Your task to perform on an android device: Search for Italian restaurants on Maps Image 0: 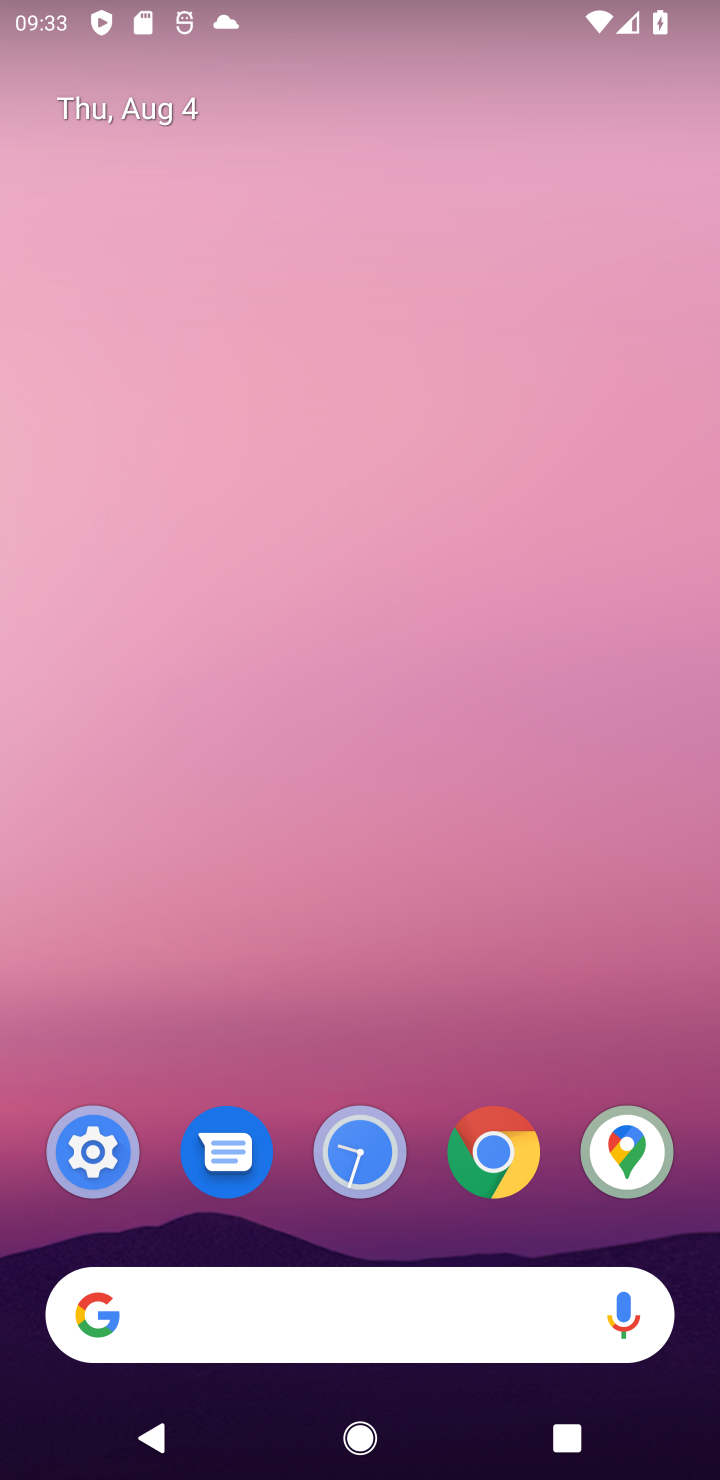
Step 0: click (638, 1152)
Your task to perform on an android device: Search for Italian restaurants on Maps Image 1: 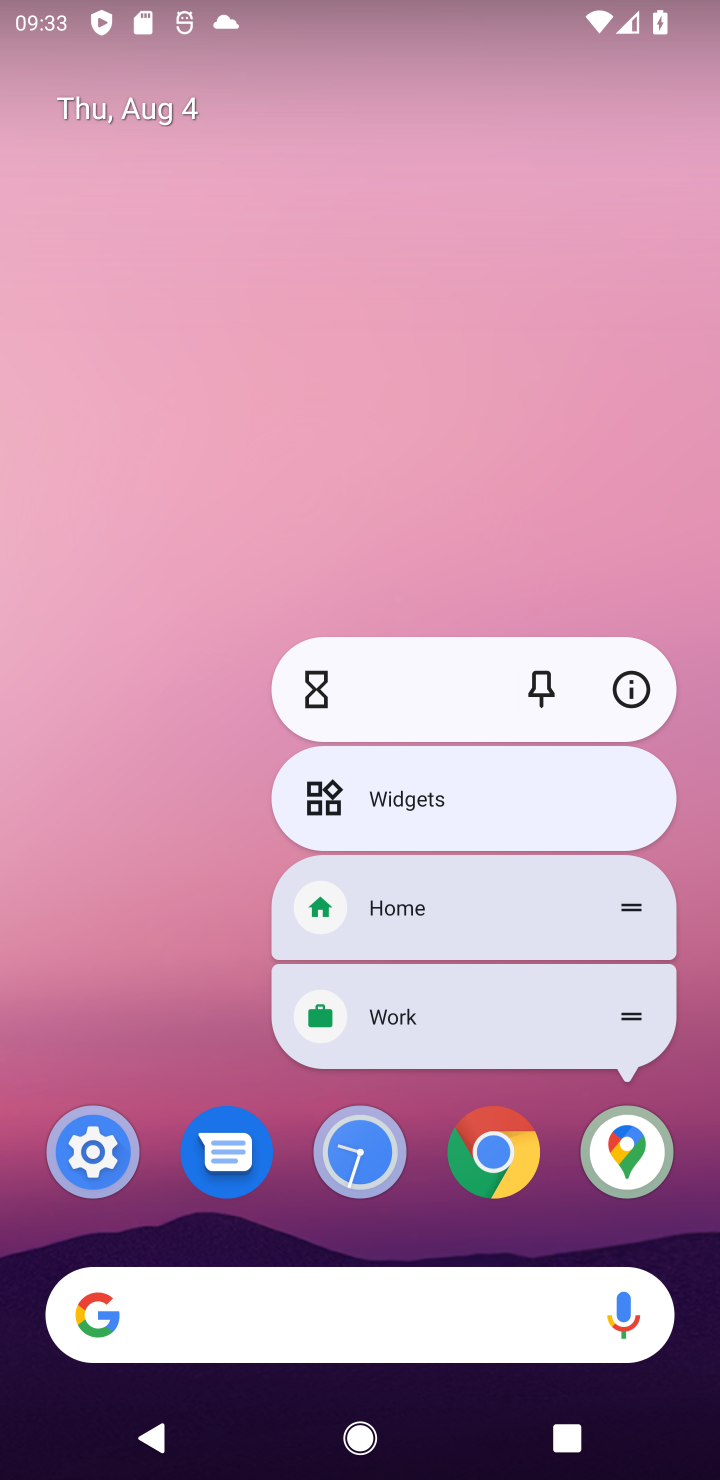
Step 1: click (637, 1149)
Your task to perform on an android device: Search for Italian restaurants on Maps Image 2: 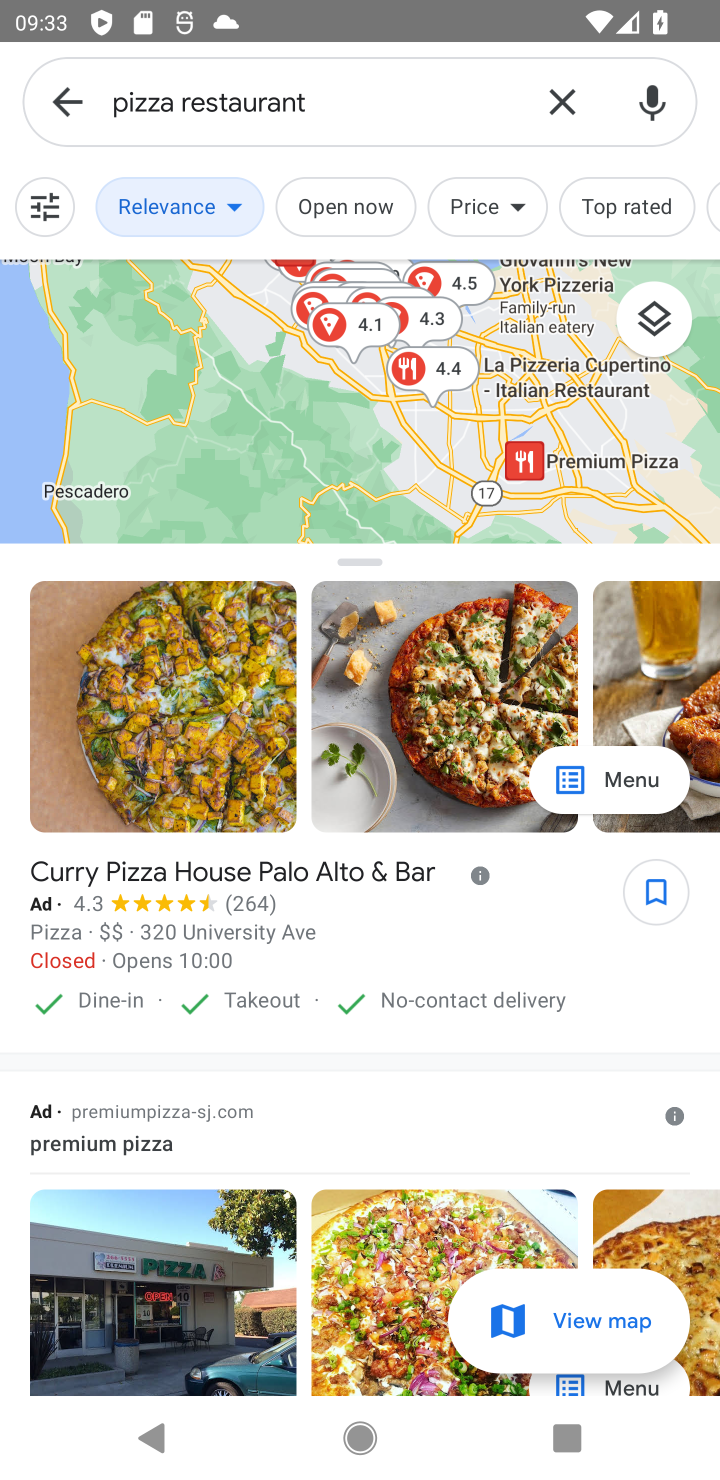
Step 2: click (549, 107)
Your task to perform on an android device: Search for Italian restaurants on Maps Image 3: 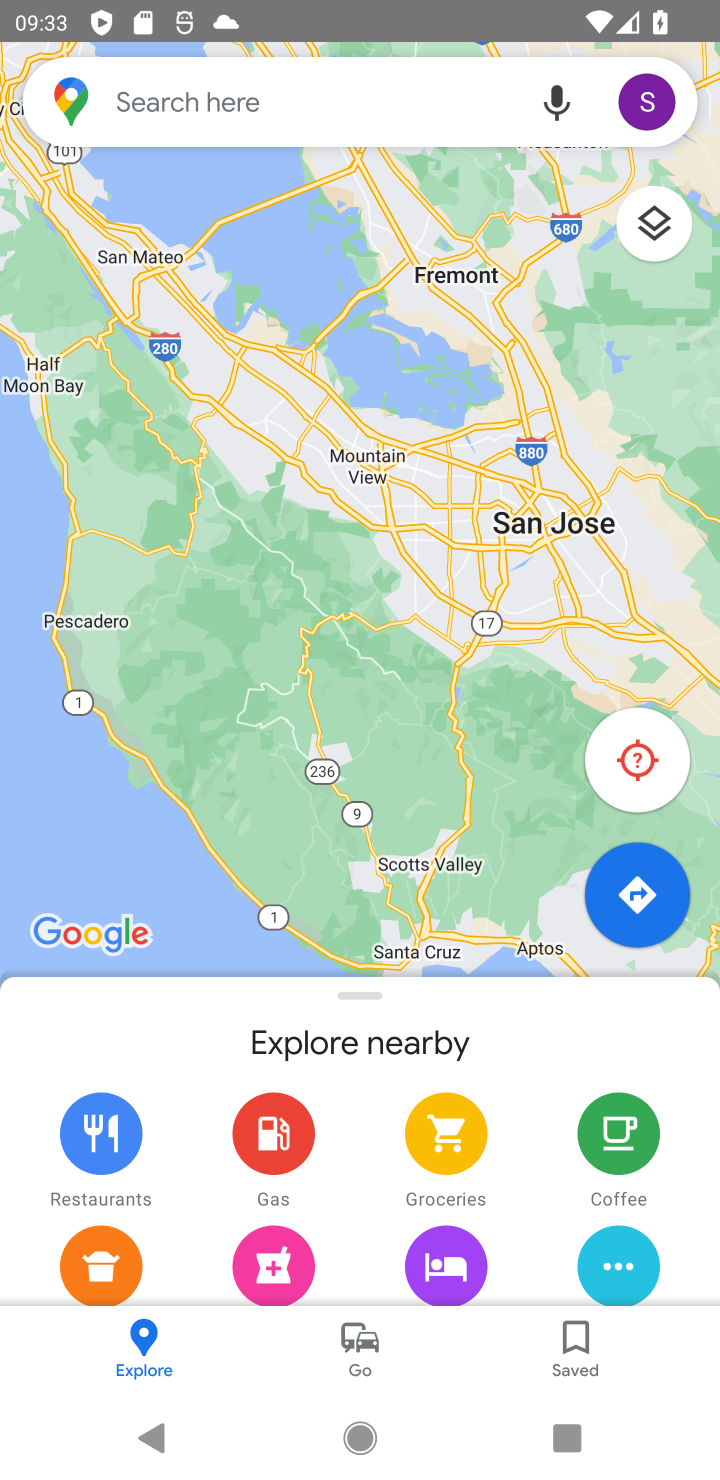
Step 3: click (233, 90)
Your task to perform on an android device: Search for Italian restaurants on Maps Image 4: 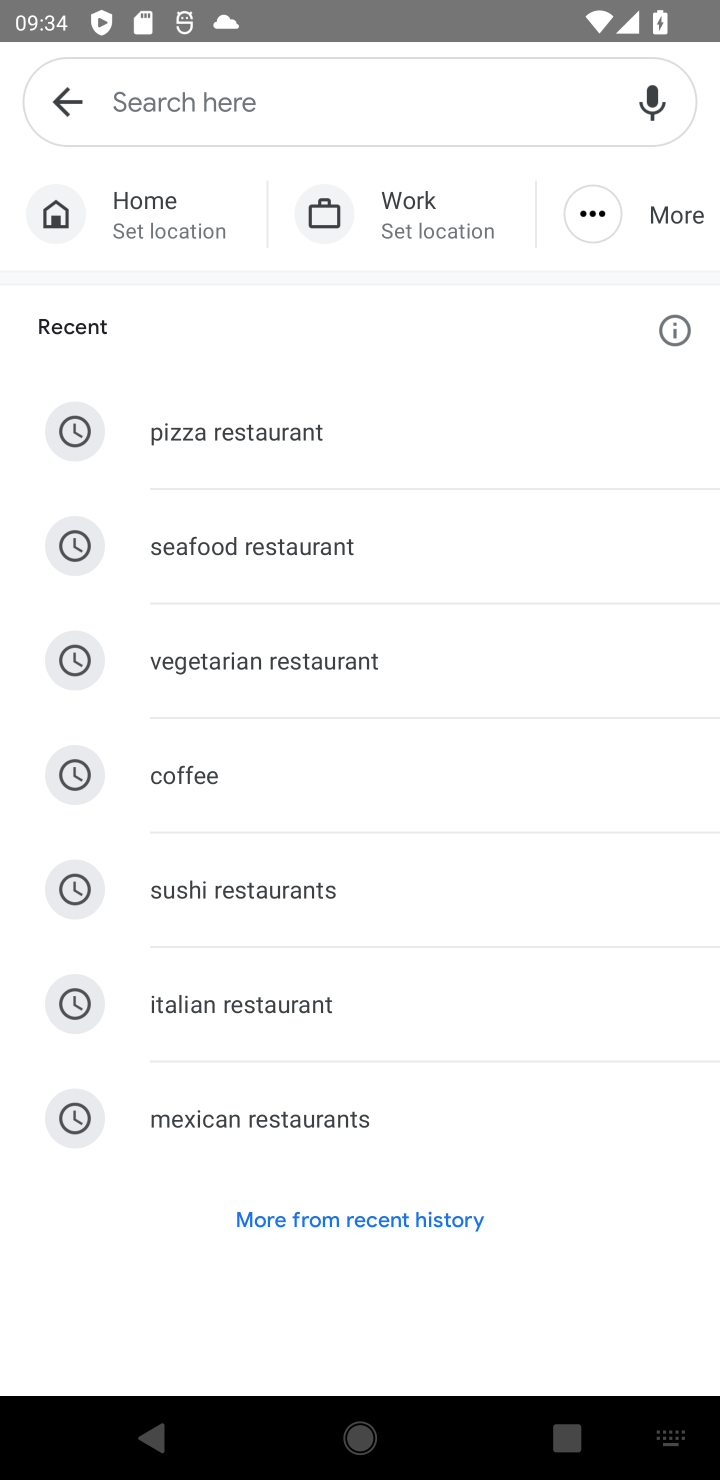
Step 4: click (361, 1003)
Your task to perform on an android device: Search for Italian restaurants on Maps Image 5: 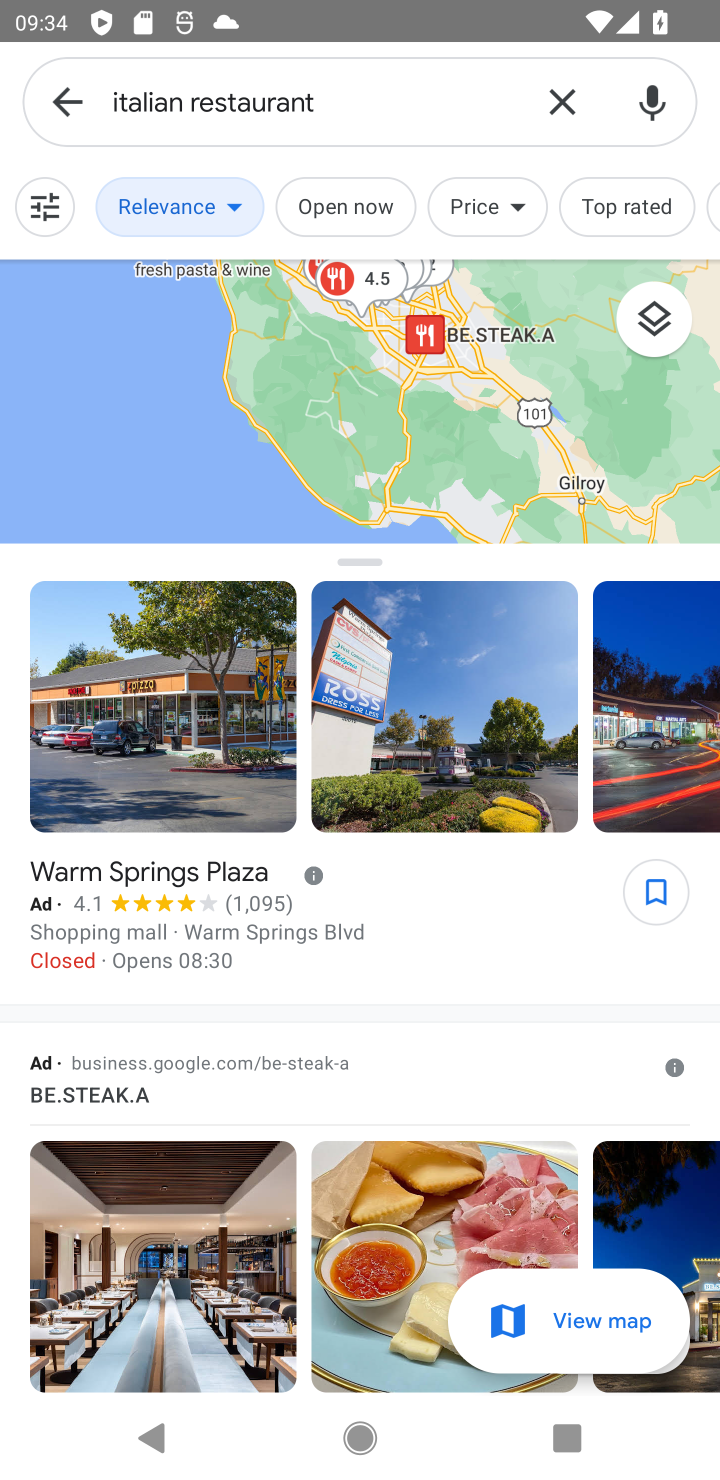
Step 5: task complete